Your task to perform on an android device: delete browsing data in the chrome app Image 0: 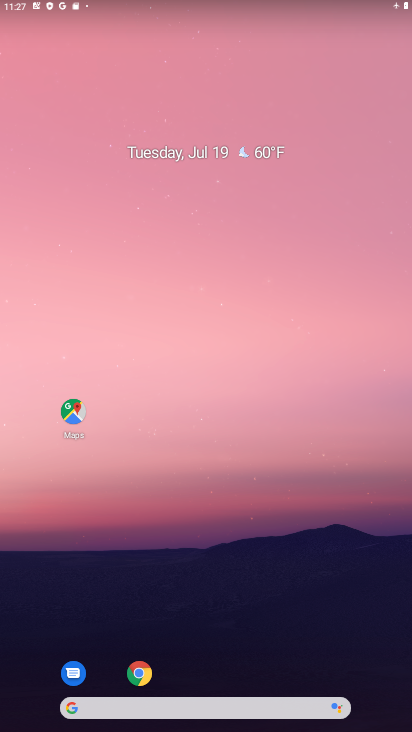
Step 0: click (137, 674)
Your task to perform on an android device: delete browsing data in the chrome app Image 1: 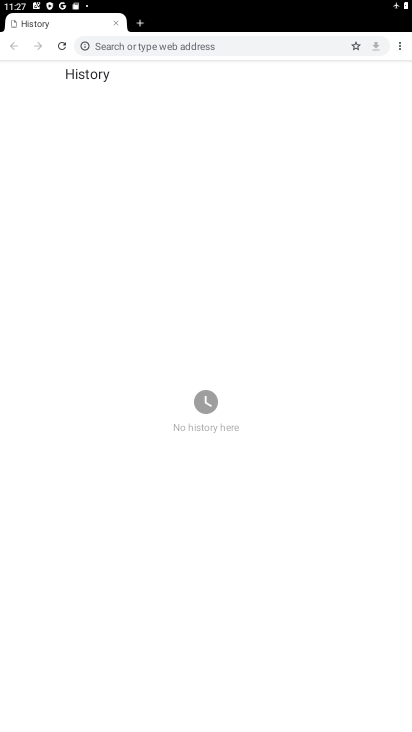
Step 1: task complete